Your task to perform on an android device: see tabs open on other devices in the chrome app Image 0: 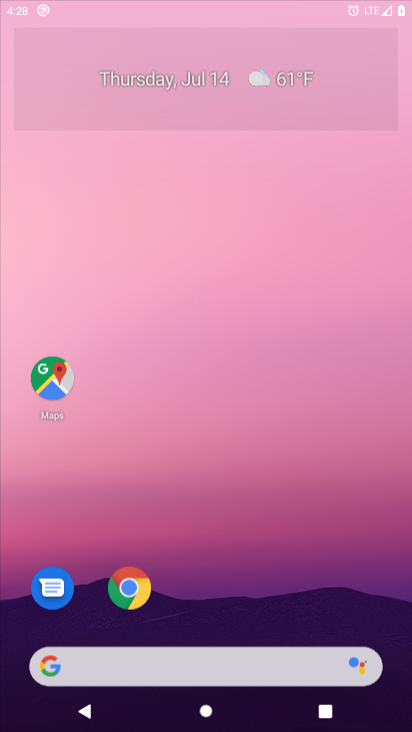
Step 0: press home button
Your task to perform on an android device: see tabs open on other devices in the chrome app Image 1: 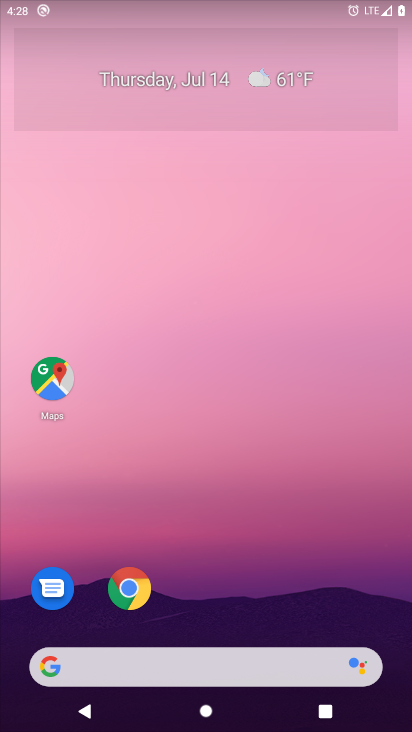
Step 1: drag from (212, 622) to (288, 39)
Your task to perform on an android device: see tabs open on other devices in the chrome app Image 2: 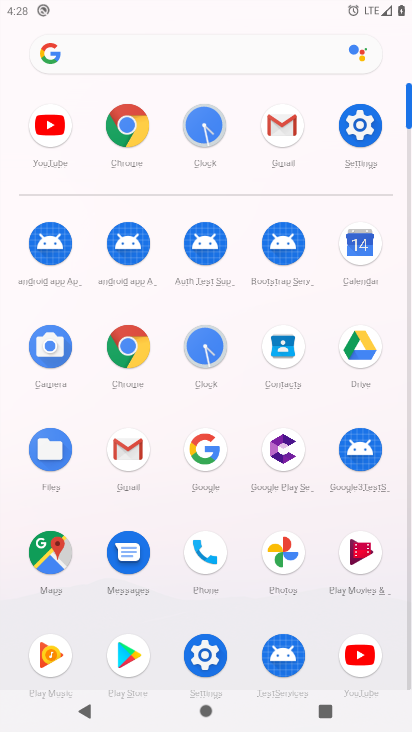
Step 2: click (130, 128)
Your task to perform on an android device: see tabs open on other devices in the chrome app Image 3: 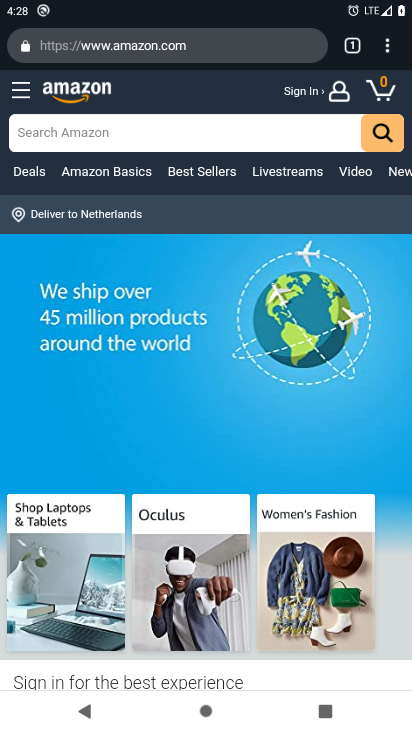
Step 3: task complete